Your task to perform on an android device: Go to Google maps Image 0: 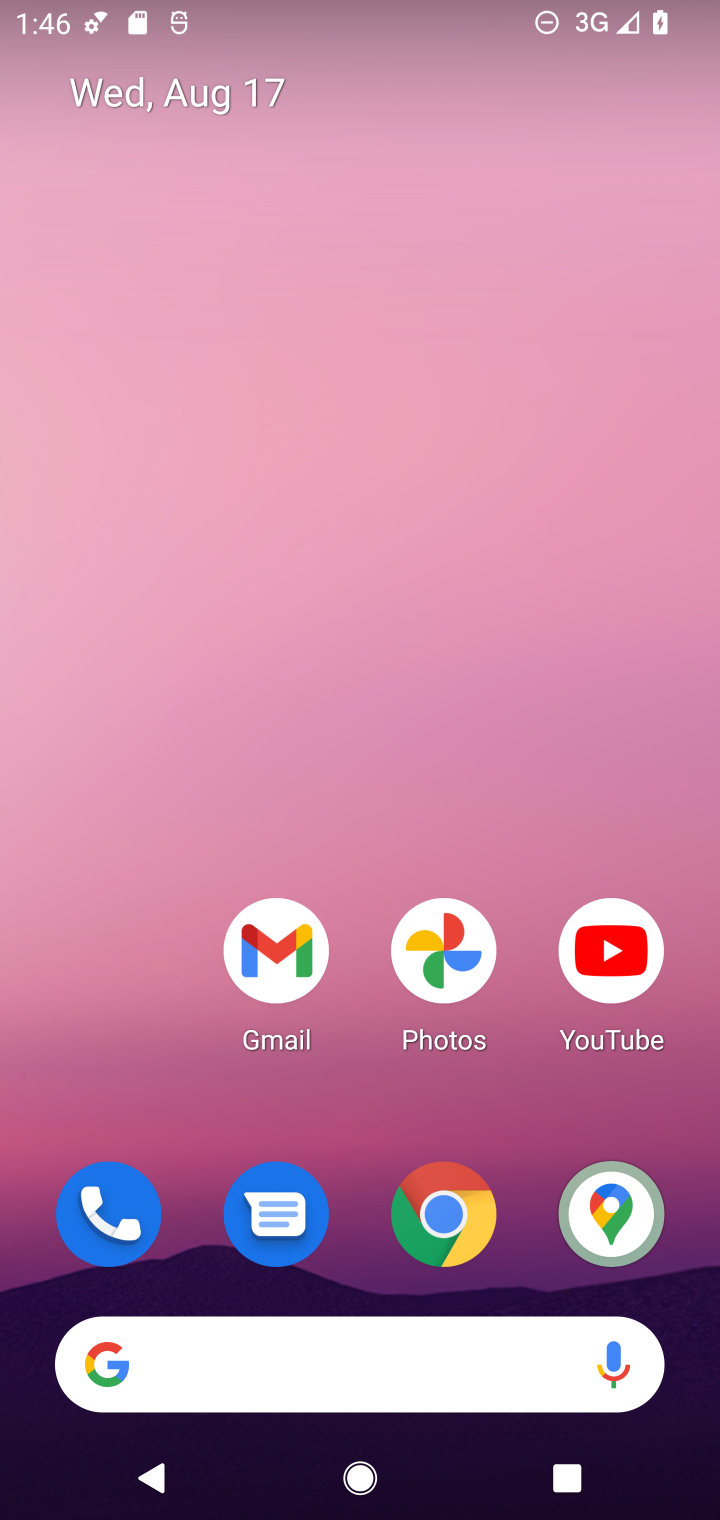
Step 0: click (609, 1202)
Your task to perform on an android device: Go to Google maps Image 1: 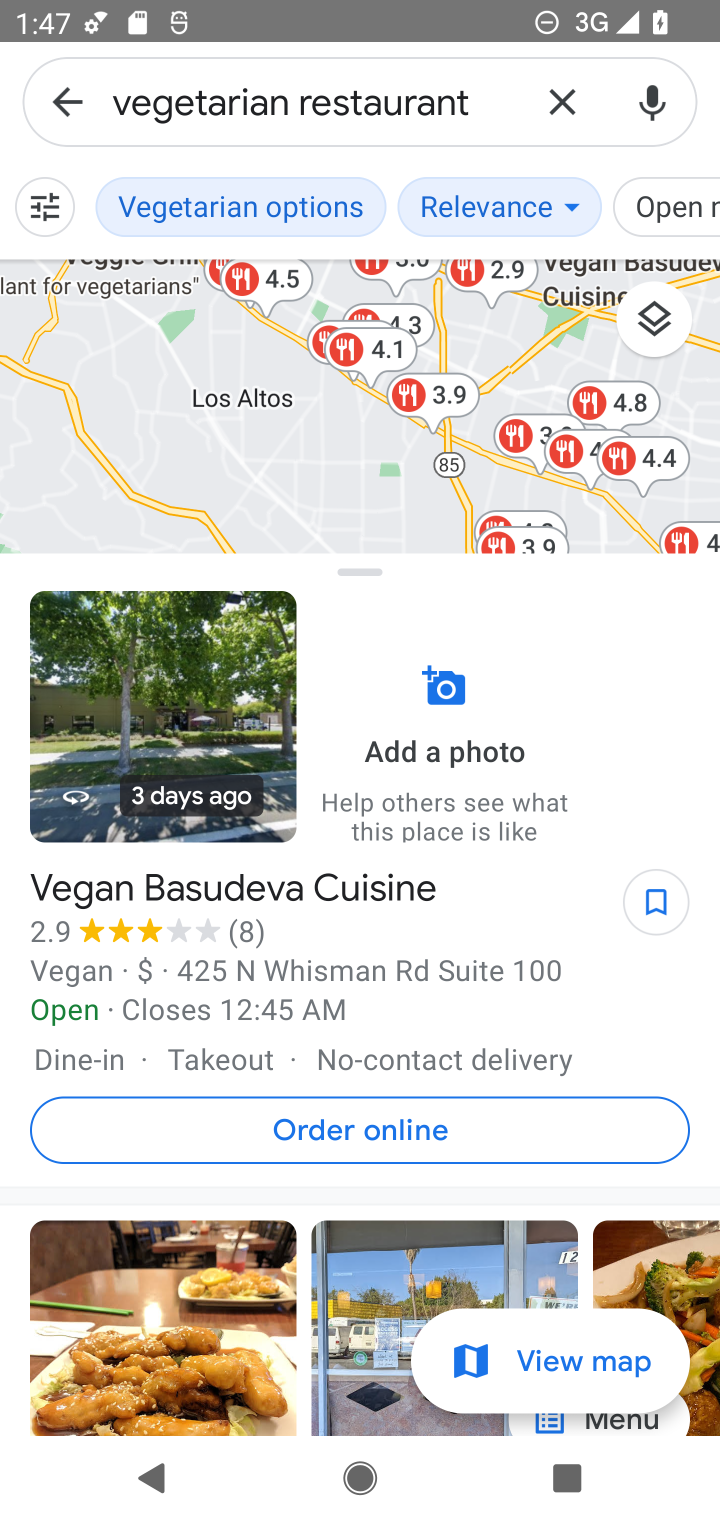
Step 1: click (62, 101)
Your task to perform on an android device: Go to Google maps Image 2: 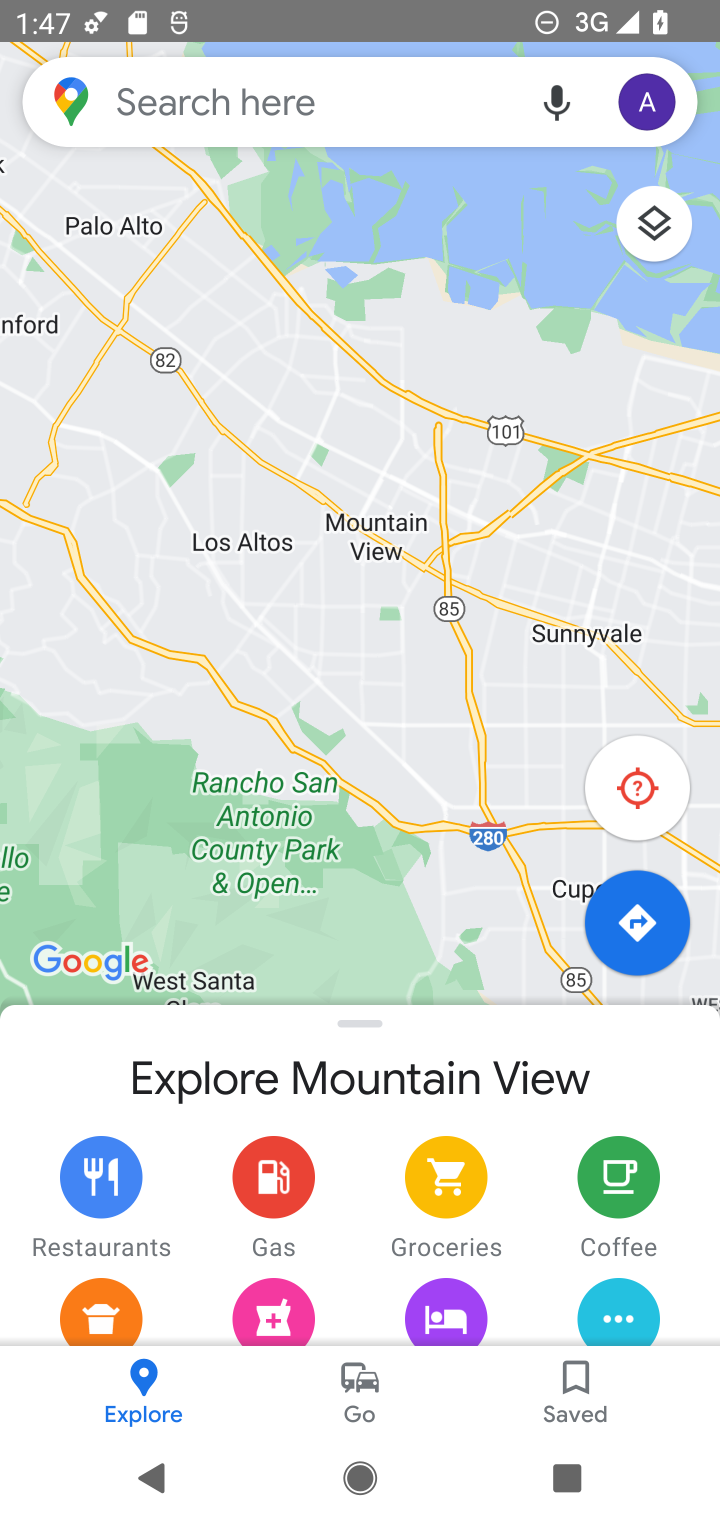
Step 2: task complete